Your task to perform on an android device: Open Google Chrome and open the bookmarks view Image 0: 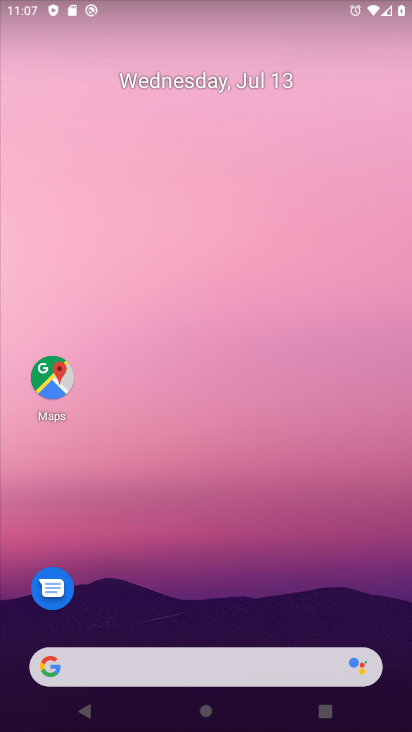
Step 0: drag from (155, 705) to (331, 48)
Your task to perform on an android device: Open Google Chrome and open the bookmarks view Image 1: 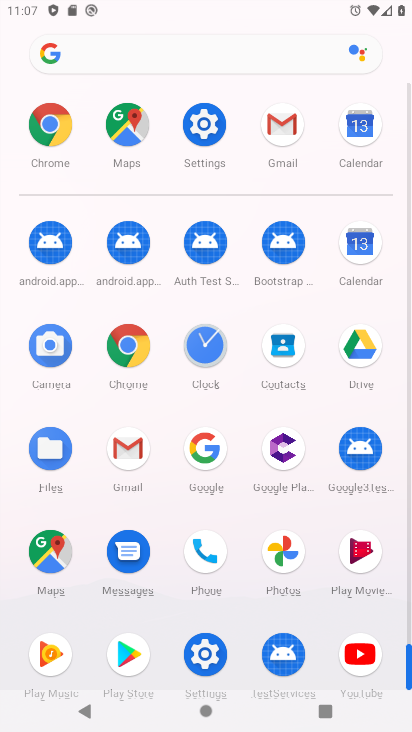
Step 1: click (51, 126)
Your task to perform on an android device: Open Google Chrome and open the bookmarks view Image 2: 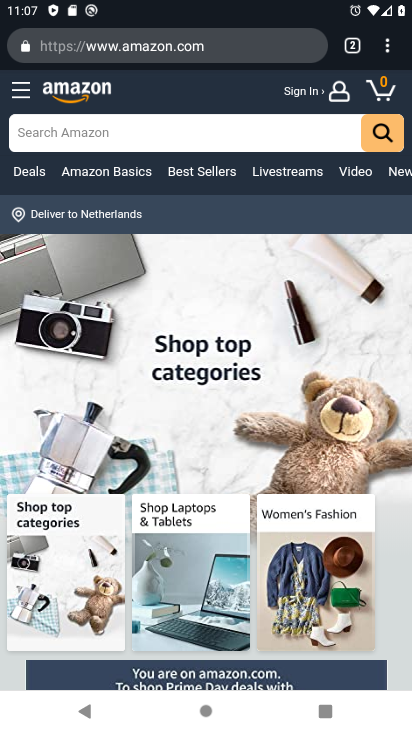
Step 2: click (390, 43)
Your task to perform on an android device: Open Google Chrome and open the bookmarks view Image 3: 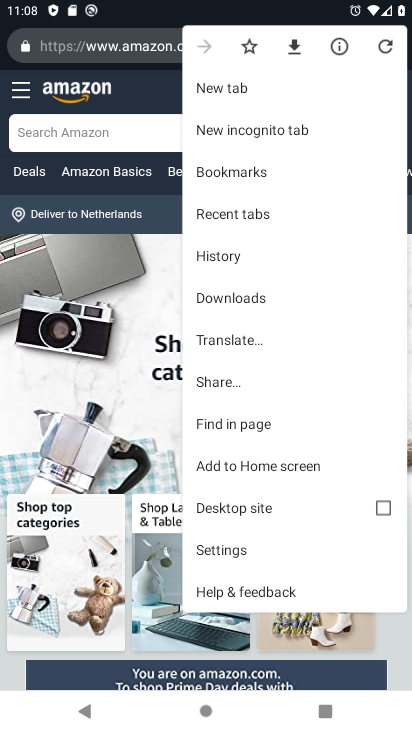
Step 3: click (255, 176)
Your task to perform on an android device: Open Google Chrome and open the bookmarks view Image 4: 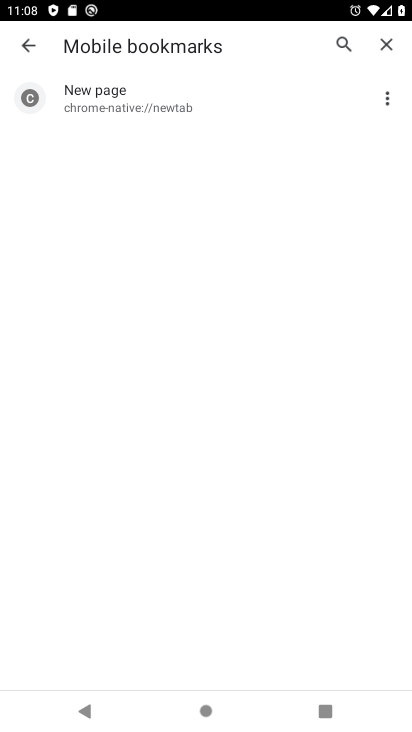
Step 4: task complete